Your task to perform on an android device: Go to settings Image 0: 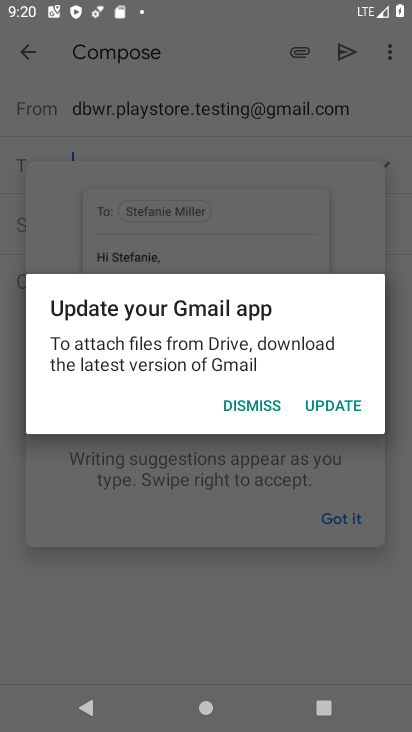
Step 0: press home button
Your task to perform on an android device: Go to settings Image 1: 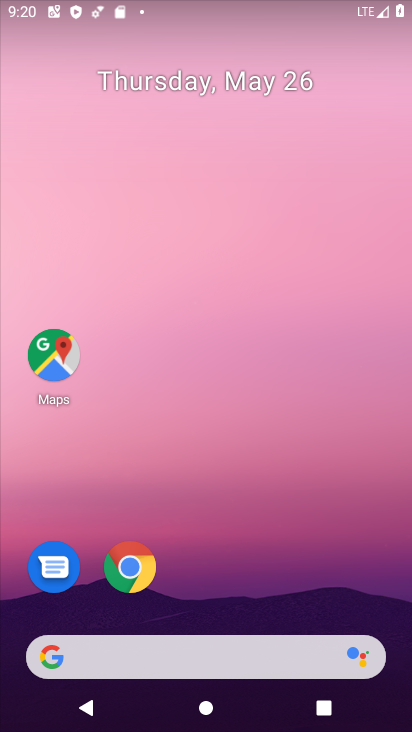
Step 1: drag from (226, 622) to (259, 1)
Your task to perform on an android device: Go to settings Image 2: 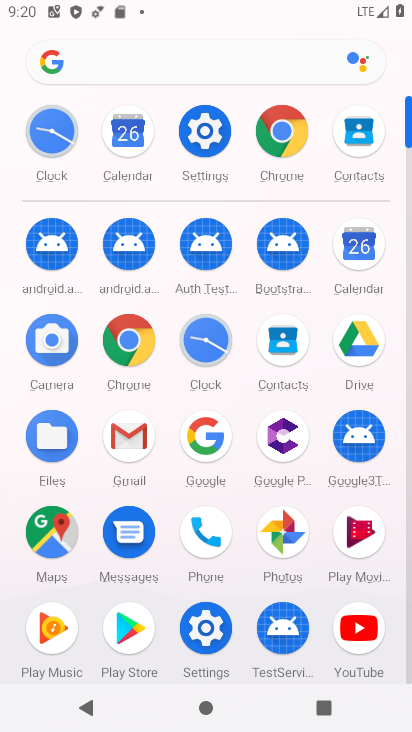
Step 2: click (228, 136)
Your task to perform on an android device: Go to settings Image 3: 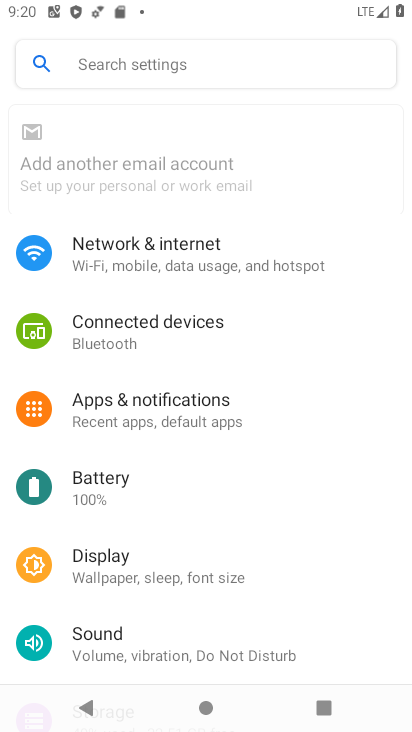
Step 3: task complete